Your task to perform on an android device: install app "Truecaller" Image 0: 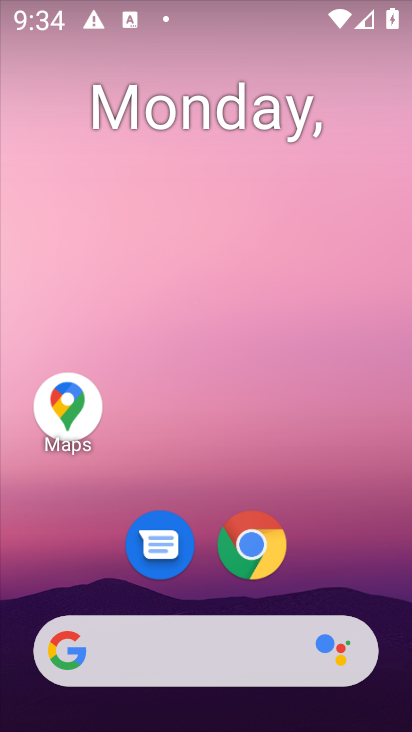
Step 0: press home button
Your task to perform on an android device: install app "Truecaller" Image 1: 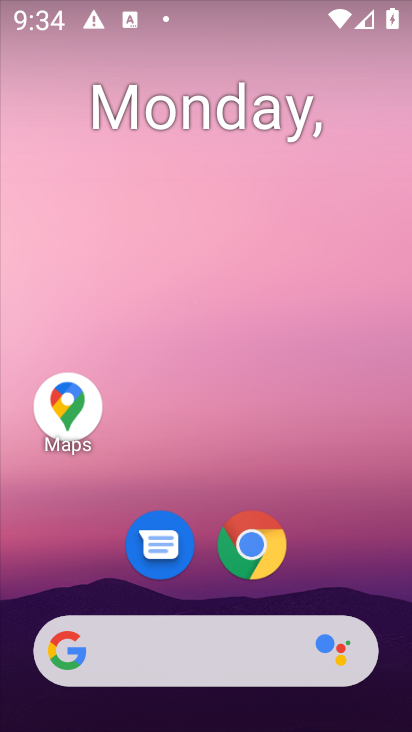
Step 1: drag from (359, 578) to (361, 112)
Your task to perform on an android device: install app "Truecaller" Image 2: 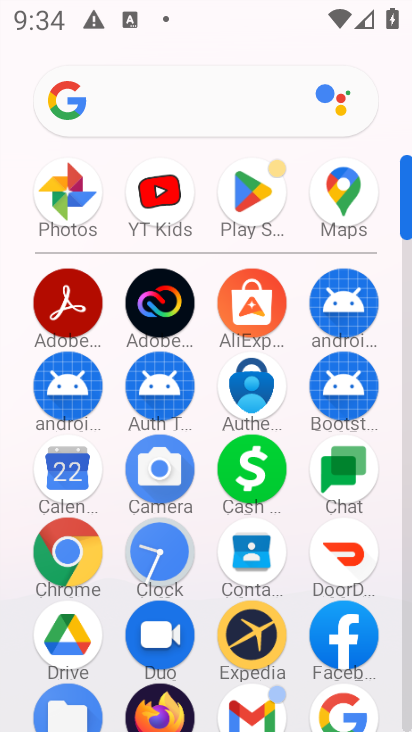
Step 2: click (242, 201)
Your task to perform on an android device: install app "Truecaller" Image 3: 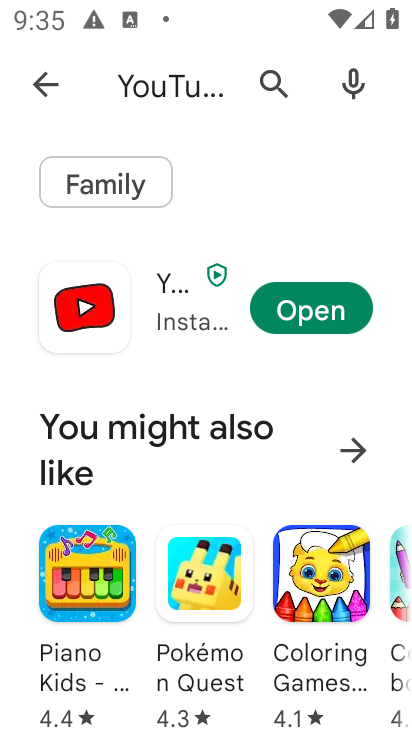
Step 3: press back button
Your task to perform on an android device: install app "Truecaller" Image 4: 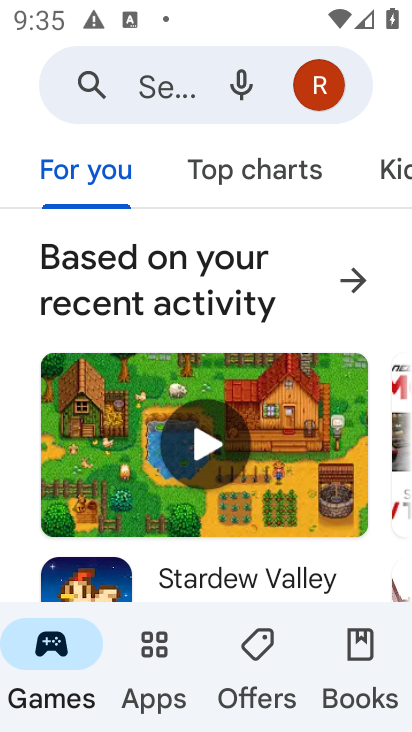
Step 4: click (169, 88)
Your task to perform on an android device: install app "Truecaller" Image 5: 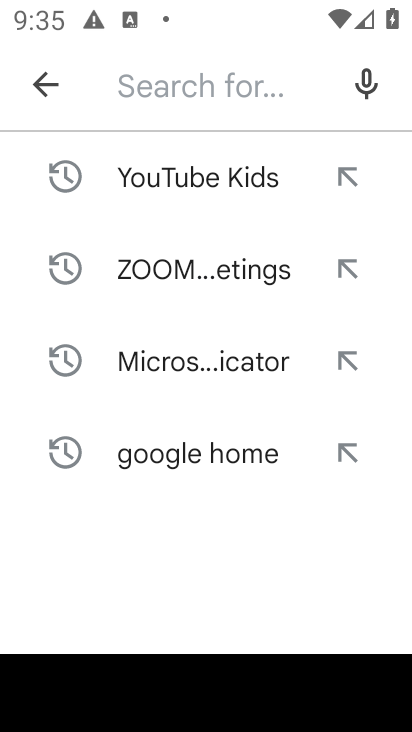
Step 5: press enter
Your task to perform on an android device: install app "Truecaller" Image 6: 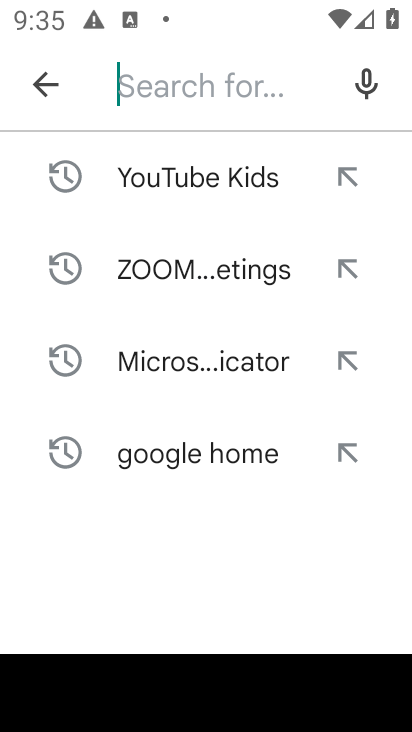
Step 6: type "truecaller"
Your task to perform on an android device: install app "Truecaller" Image 7: 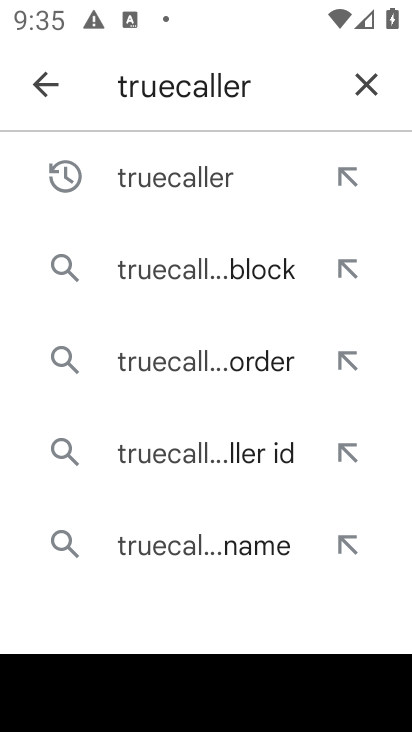
Step 7: click (201, 170)
Your task to perform on an android device: install app "Truecaller" Image 8: 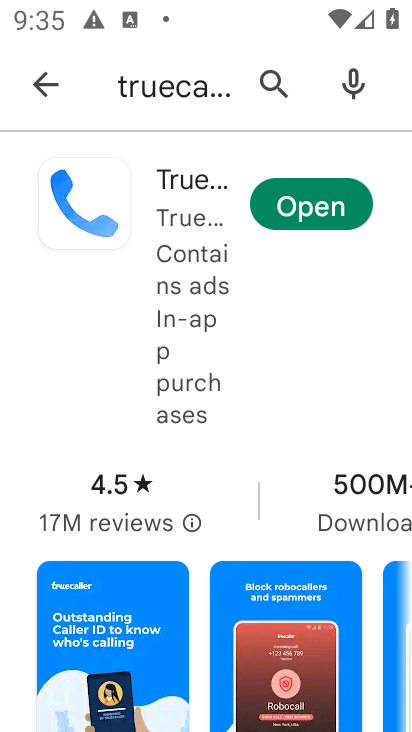
Step 8: task complete